Your task to perform on an android device: Show me productivity apps on the Play Store Image 0: 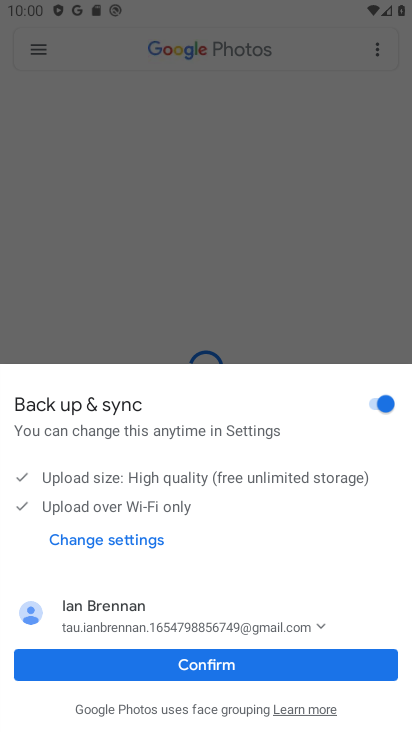
Step 0: press home button
Your task to perform on an android device: Show me productivity apps on the Play Store Image 1: 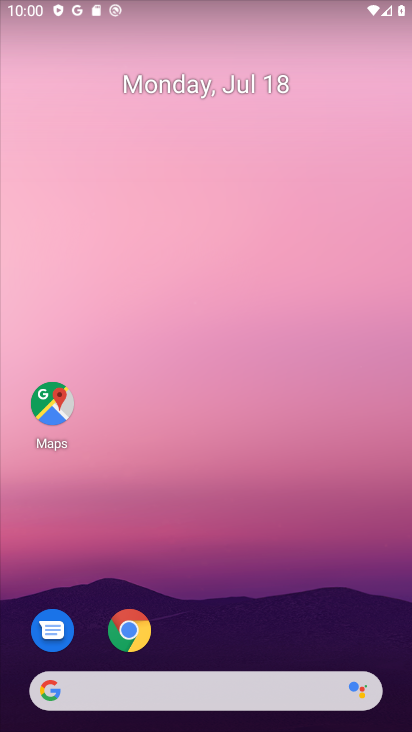
Step 1: drag from (235, 604) to (224, 130)
Your task to perform on an android device: Show me productivity apps on the Play Store Image 2: 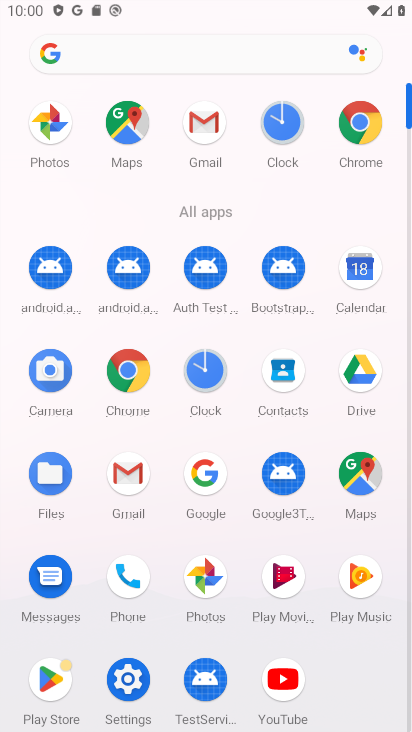
Step 2: click (47, 681)
Your task to perform on an android device: Show me productivity apps on the Play Store Image 3: 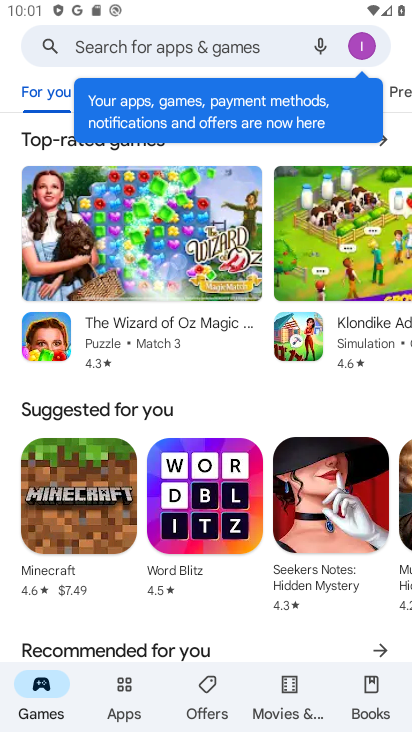
Step 3: click (124, 690)
Your task to perform on an android device: Show me productivity apps on the Play Store Image 4: 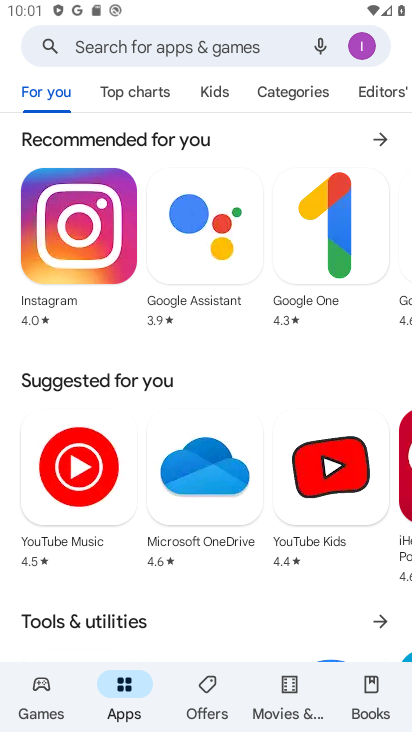
Step 4: click (284, 89)
Your task to perform on an android device: Show me productivity apps on the Play Store Image 5: 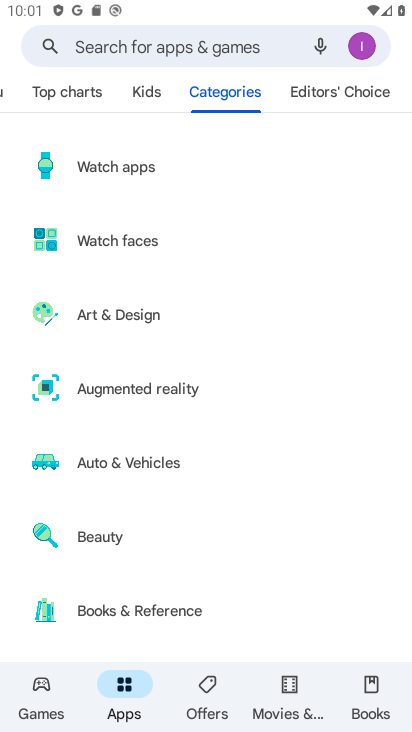
Step 5: drag from (208, 578) to (180, 294)
Your task to perform on an android device: Show me productivity apps on the Play Store Image 6: 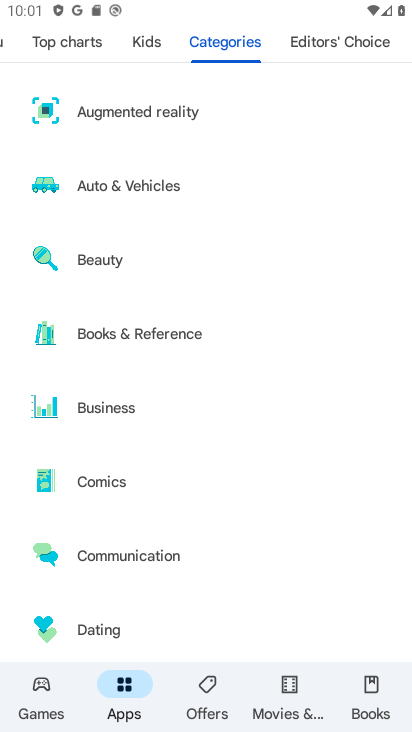
Step 6: drag from (213, 618) to (197, 177)
Your task to perform on an android device: Show me productivity apps on the Play Store Image 7: 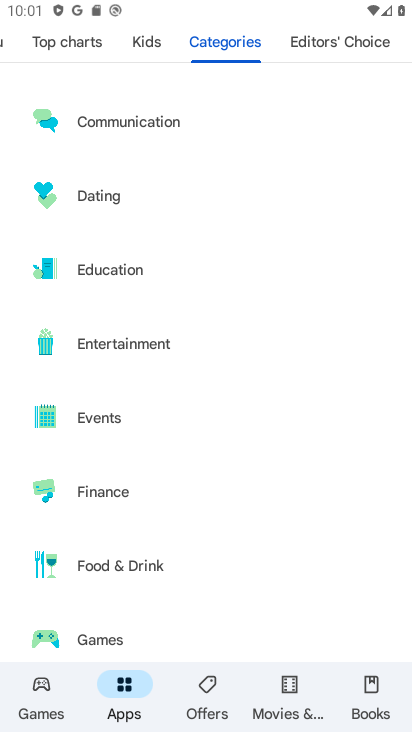
Step 7: drag from (200, 600) to (118, 154)
Your task to perform on an android device: Show me productivity apps on the Play Store Image 8: 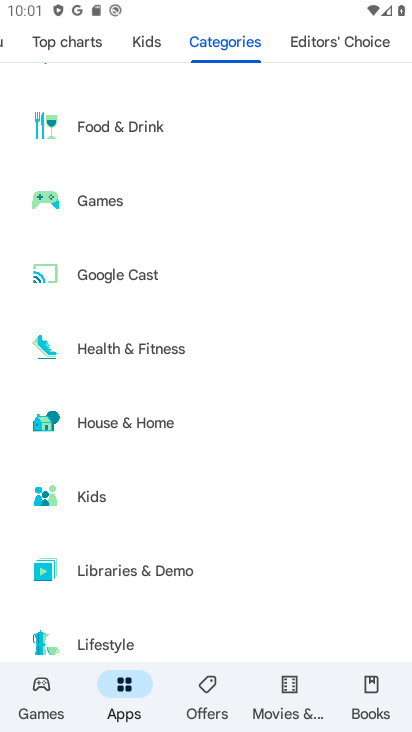
Step 8: drag from (159, 604) to (137, 296)
Your task to perform on an android device: Show me productivity apps on the Play Store Image 9: 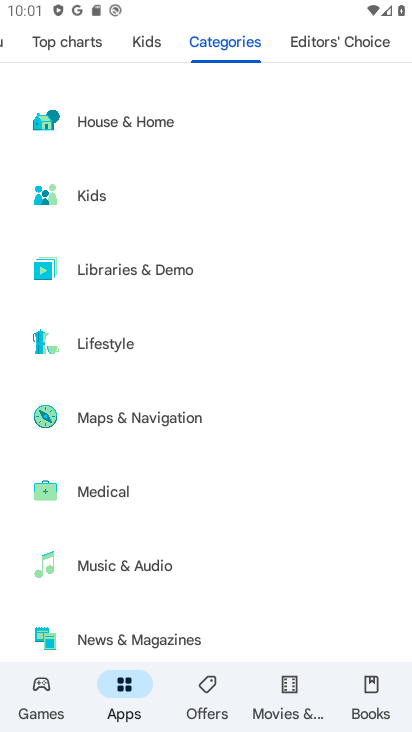
Step 9: drag from (189, 609) to (166, 219)
Your task to perform on an android device: Show me productivity apps on the Play Store Image 10: 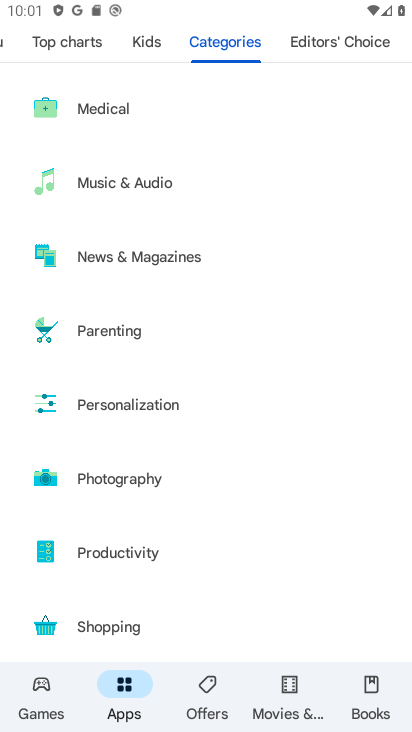
Step 10: click (160, 548)
Your task to perform on an android device: Show me productivity apps on the Play Store Image 11: 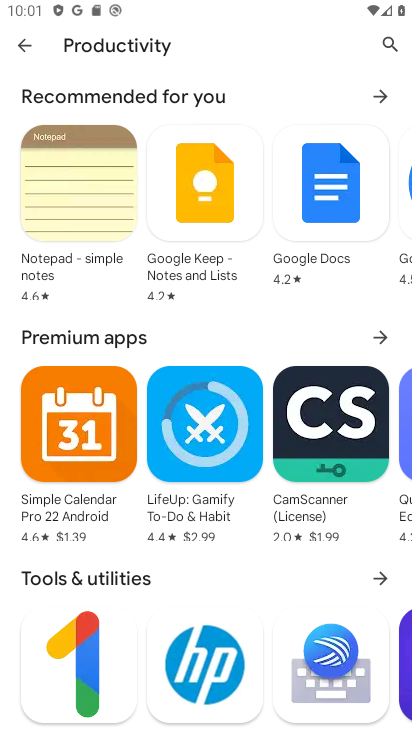
Step 11: task complete